Your task to perform on an android device: Open Reddit.com Image 0: 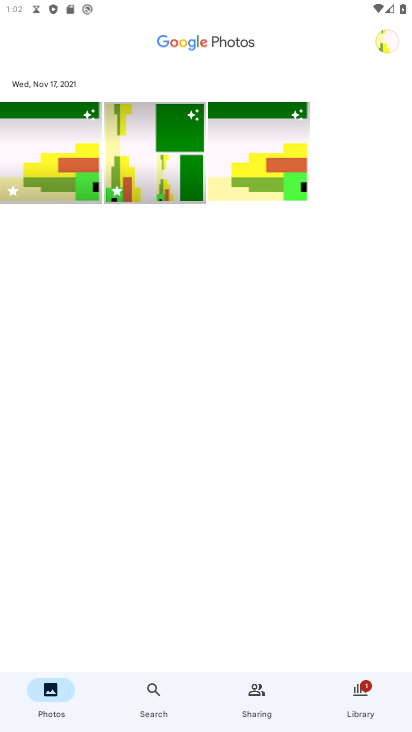
Step 0: press home button
Your task to perform on an android device: Open Reddit.com Image 1: 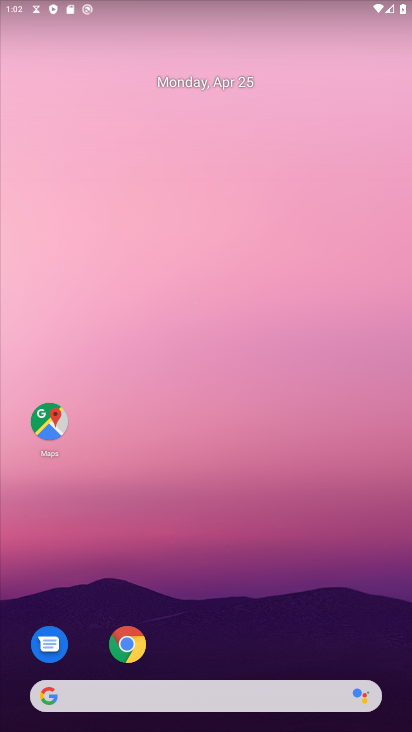
Step 1: click (132, 648)
Your task to perform on an android device: Open Reddit.com Image 2: 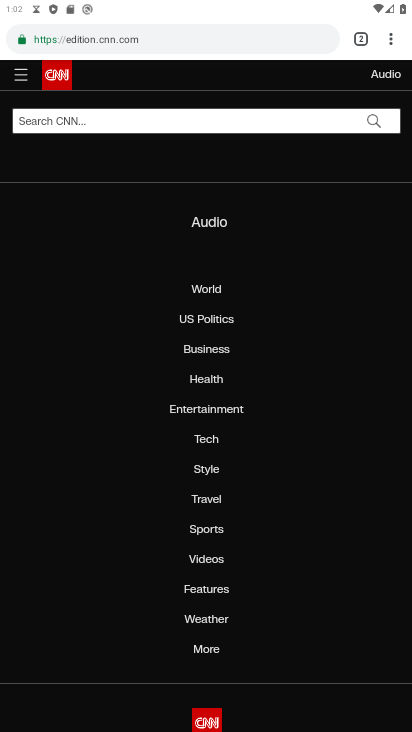
Step 2: click (100, 43)
Your task to perform on an android device: Open Reddit.com Image 3: 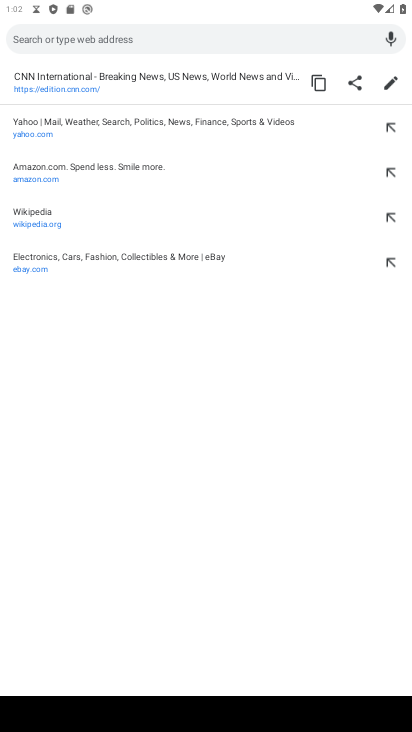
Step 3: type "reddit.com"
Your task to perform on an android device: Open Reddit.com Image 4: 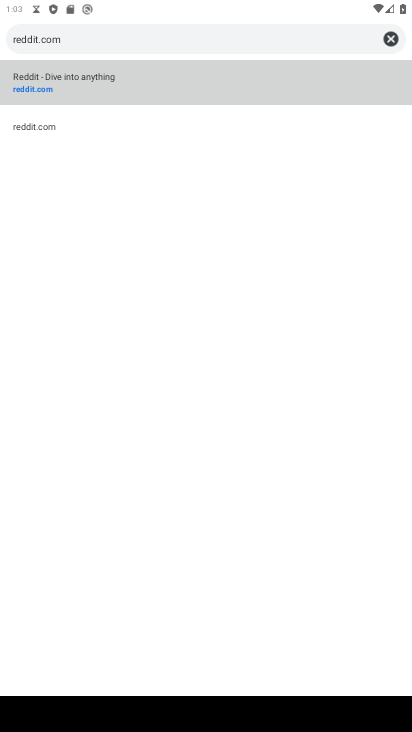
Step 4: click (39, 92)
Your task to perform on an android device: Open Reddit.com Image 5: 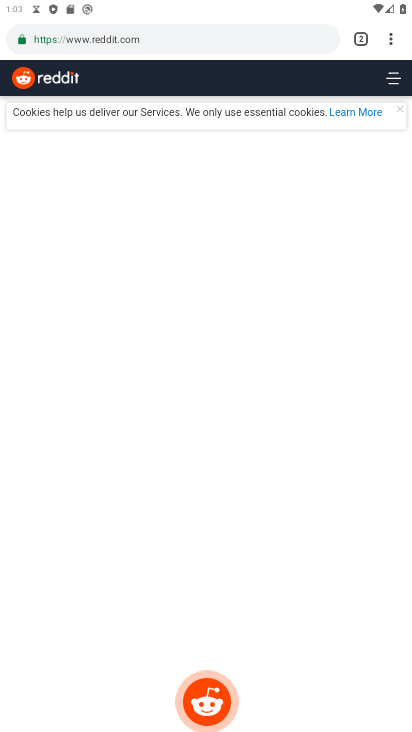
Step 5: task complete